Your task to perform on an android device: find snoozed emails in the gmail app Image 0: 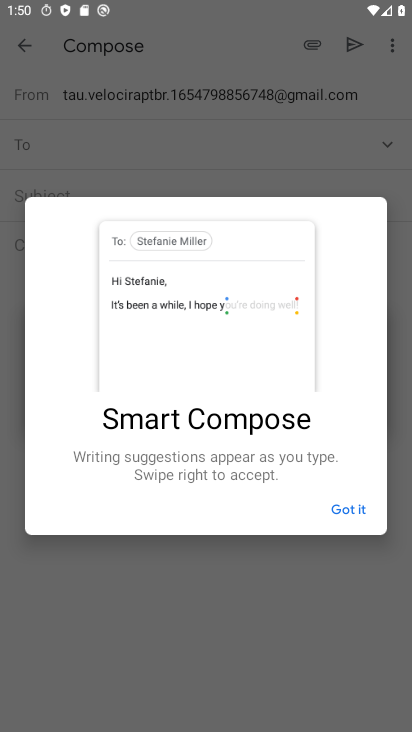
Step 0: press home button
Your task to perform on an android device: find snoozed emails in the gmail app Image 1: 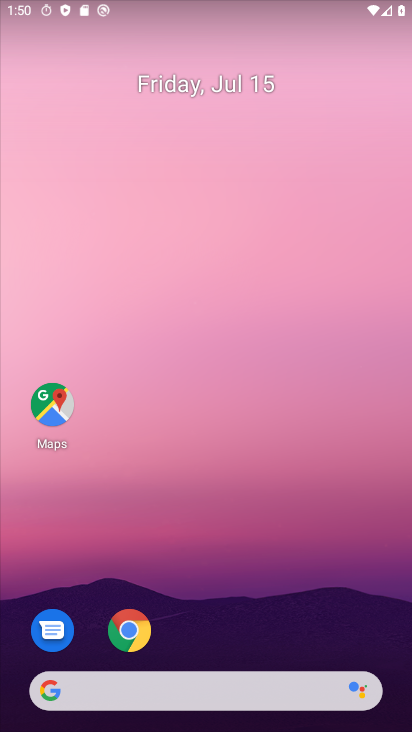
Step 1: drag from (205, 623) to (205, 266)
Your task to perform on an android device: find snoozed emails in the gmail app Image 2: 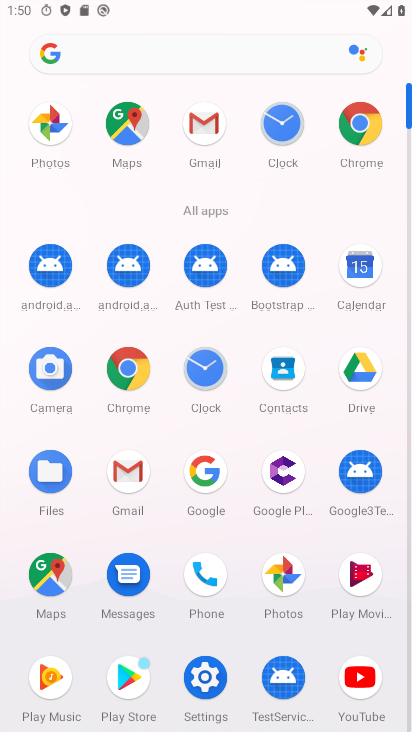
Step 2: click (208, 151)
Your task to perform on an android device: find snoozed emails in the gmail app Image 3: 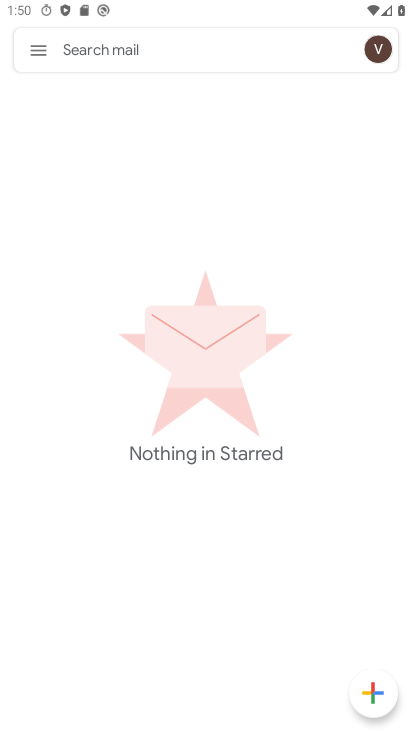
Step 3: click (44, 44)
Your task to perform on an android device: find snoozed emails in the gmail app Image 4: 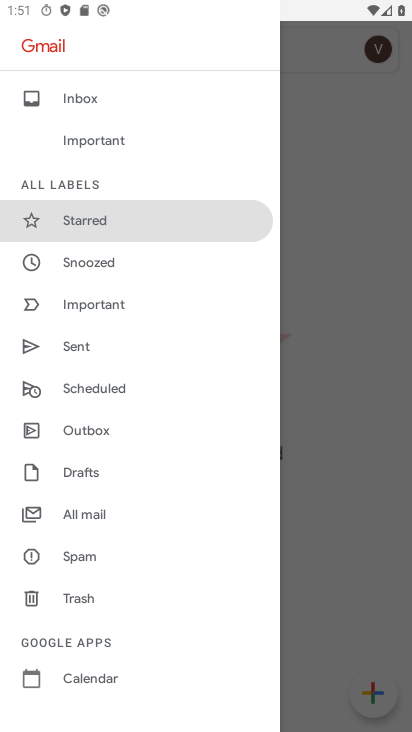
Step 4: click (110, 269)
Your task to perform on an android device: find snoozed emails in the gmail app Image 5: 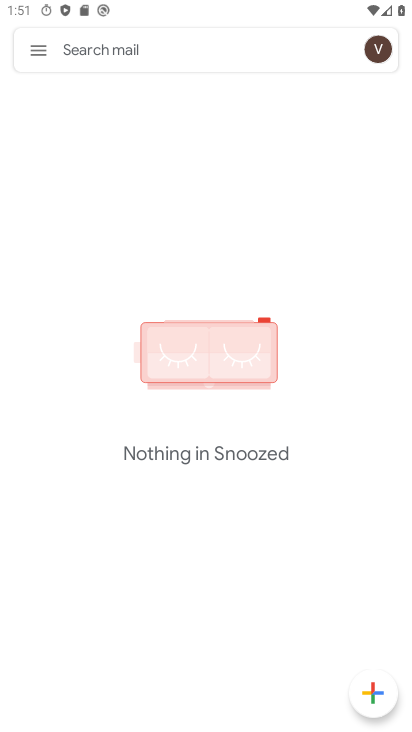
Step 5: task complete